Your task to perform on an android device: make emails show in primary in the gmail app Image 0: 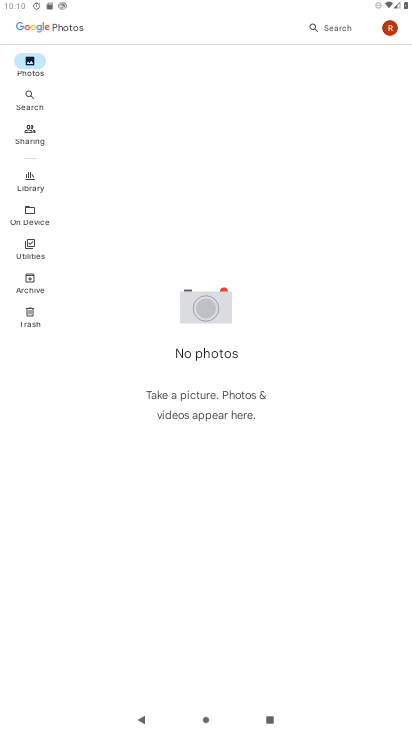
Step 0: press home button
Your task to perform on an android device: make emails show in primary in the gmail app Image 1: 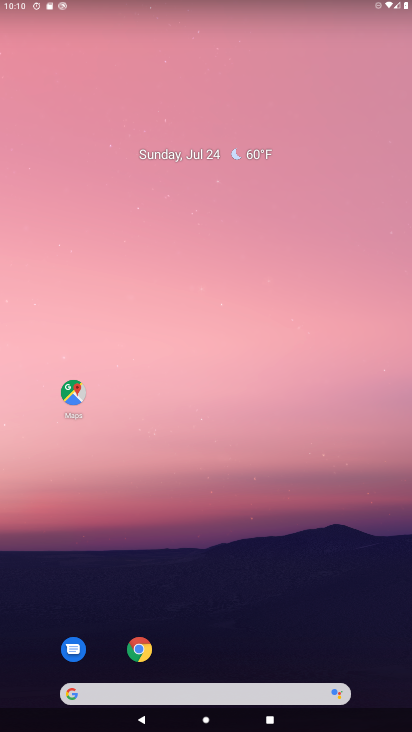
Step 1: click (252, 128)
Your task to perform on an android device: make emails show in primary in the gmail app Image 2: 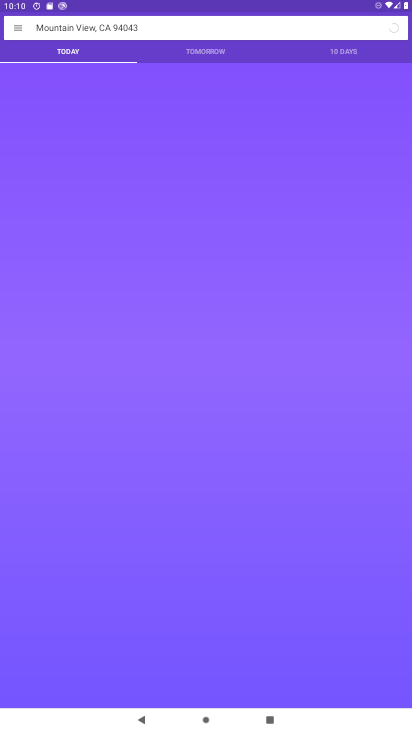
Step 2: press home button
Your task to perform on an android device: make emails show in primary in the gmail app Image 3: 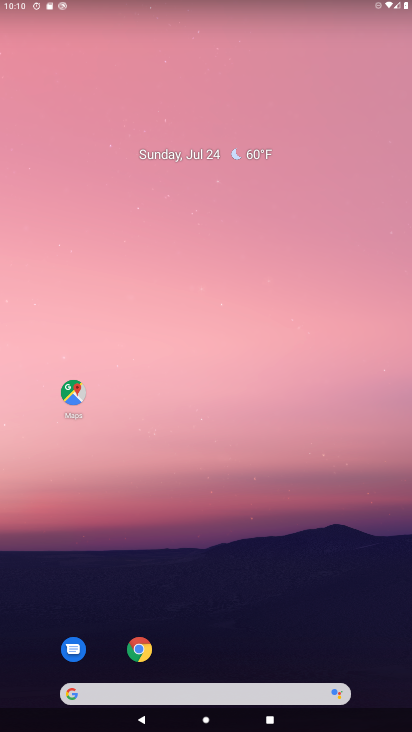
Step 3: drag from (319, 557) to (294, 81)
Your task to perform on an android device: make emails show in primary in the gmail app Image 4: 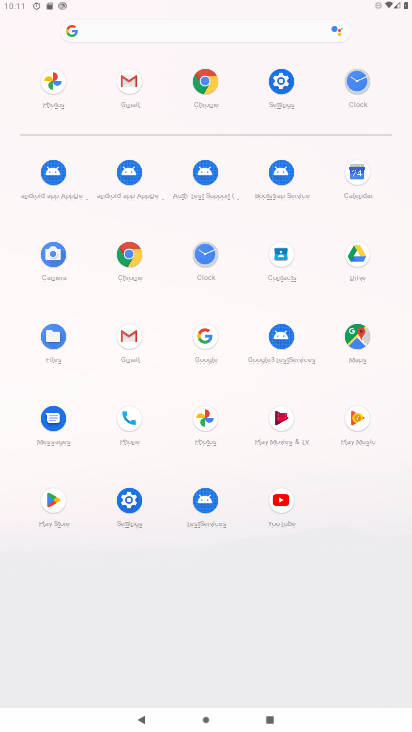
Step 4: click (128, 82)
Your task to perform on an android device: make emails show in primary in the gmail app Image 5: 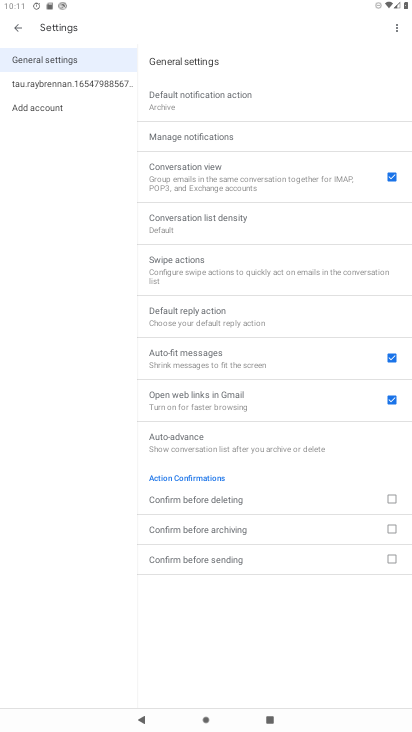
Step 5: click (106, 83)
Your task to perform on an android device: make emails show in primary in the gmail app Image 6: 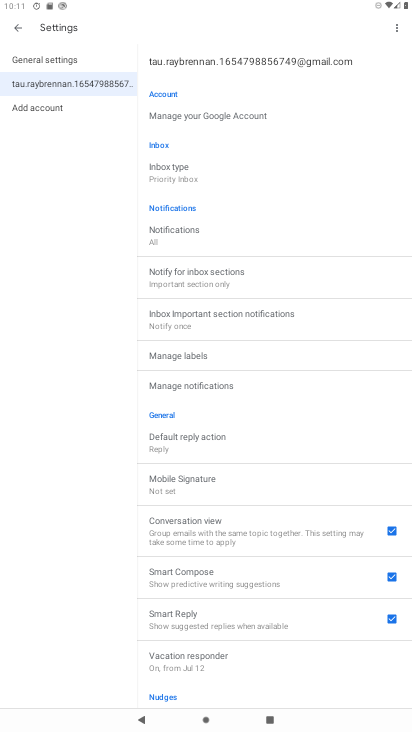
Step 6: click (184, 185)
Your task to perform on an android device: make emails show in primary in the gmail app Image 7: 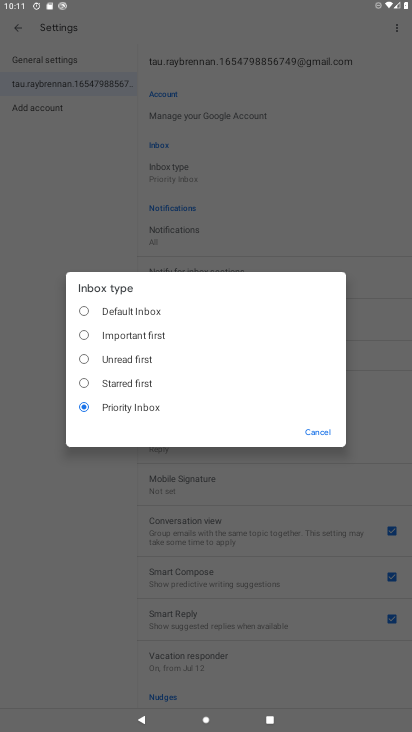
Step 7: click (325, 437)
Your task to perform on an android device: make emails show in primary in the gmail app Image 8: 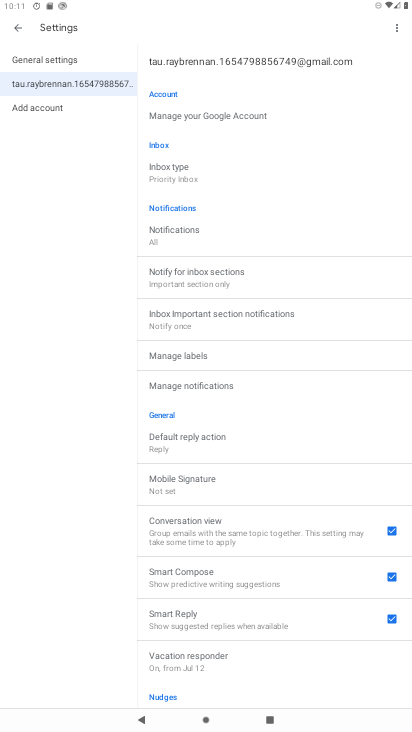
Step 8: click (189, 180)
Your task to perform on an android device: make emails show in primary in the gmail app Image 9: 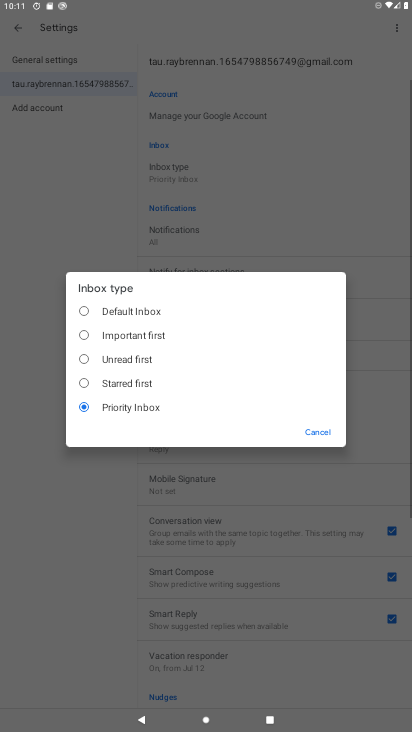
Step 9: click (118, 305)
Your task to perform on an android device: make emails show in primary in the gmail app Image 10: 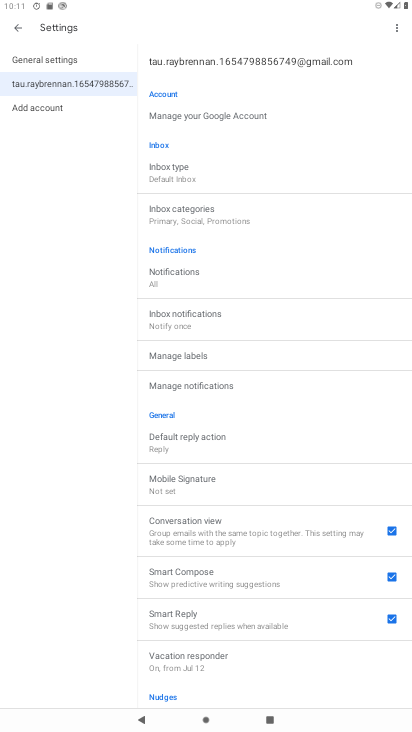
Step 10: click (195, 218)
Your task to perform on an android device: make emails show in primary in the gmail app Image 11: 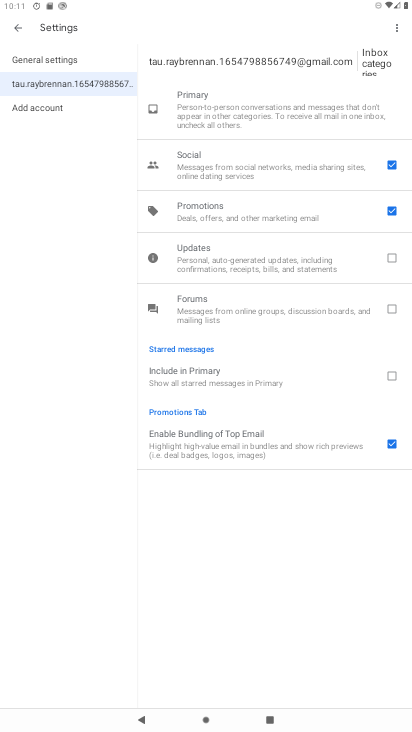
Step 11: task complete